Your task to perform on an android device: refresh tabs in the chrome app Image 0: 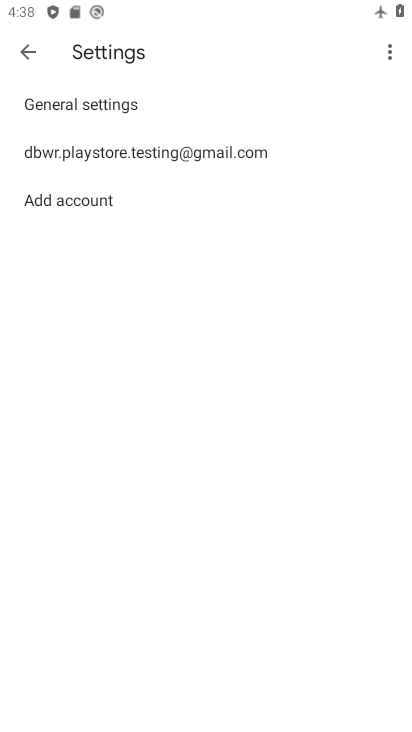
Step 0: press home button
Your task to perform on an android device: refresh tabs in the chrome app Image 1: 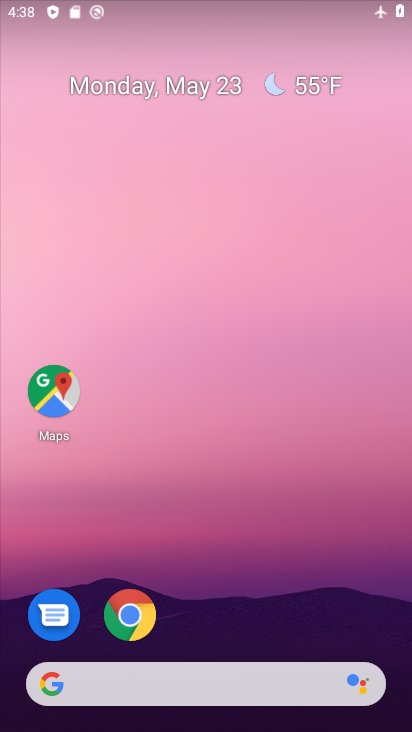
Step 1: drag from (320, 587) to (317, 200)
Your task to perform on an android device: refresh tabs in the chrome app Image 2: 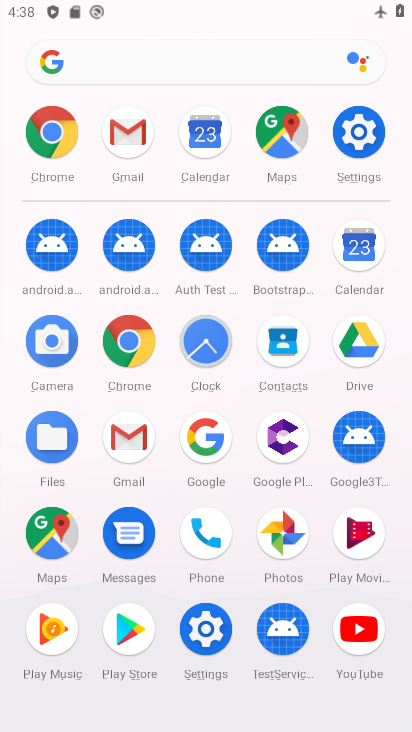
Step 2: click (137, 345)
Your task to perform on an android device: refresh tabs in the chrome app Image 3: 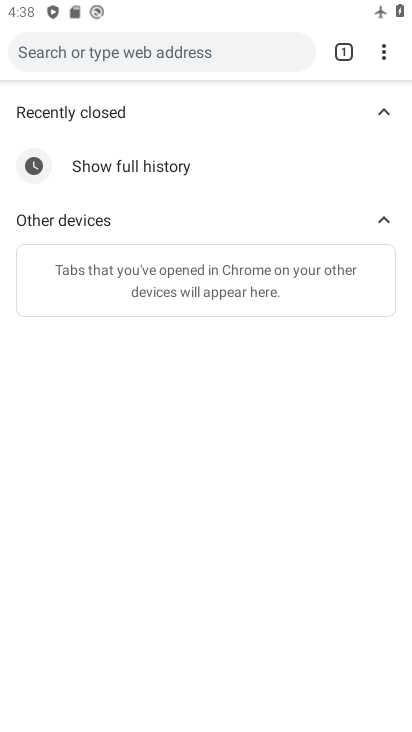
Step 3: click (383, 61)
Your task to perform on an android device: refresh tabs in the chrome app Image 4: 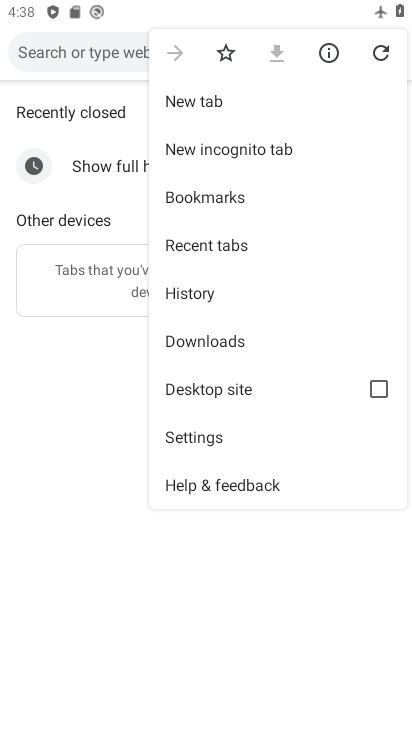
Step 4: click (383, 61)
Your task to perform on an android device: refresh tabs in the chrome app Image 5: 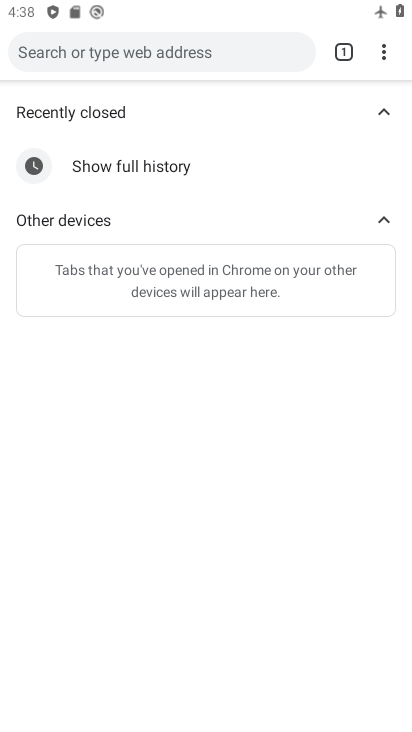
Step 5: task complete